Your task to perform on an android device: change the clock display to analog Image 0: 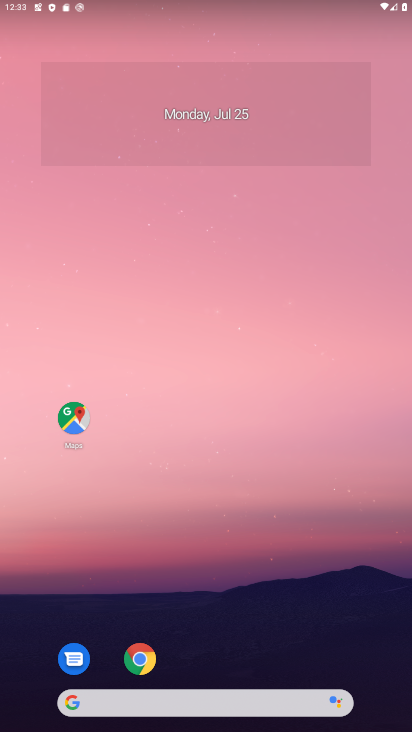
Step 0: drag from (324, 529) to (406, 161)
Your task to perform on an android device: change the clock display to analog Image 1: 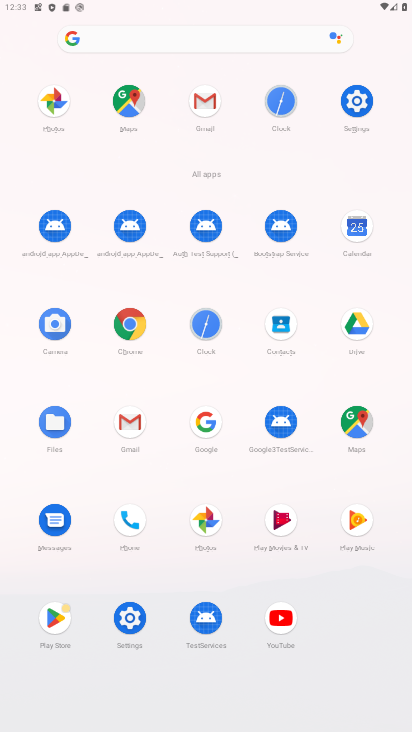
Step 1: click (196, 329)
Your task to perform on an android device: change the clock display to analog Image 2: 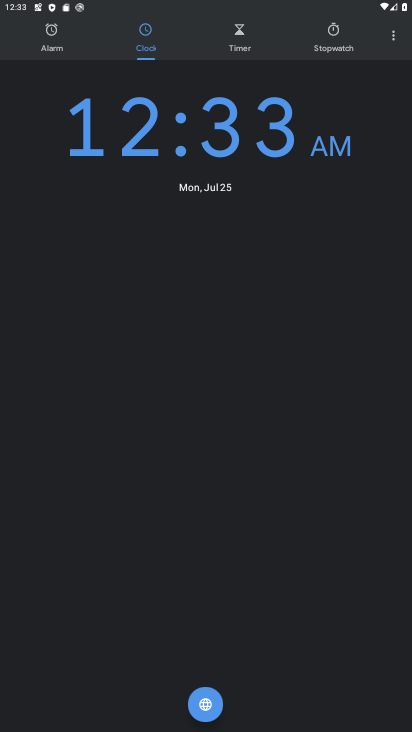
Step 2: click (396, 36)
Your task to perform on an android device: change the clock display to analog Image 3: 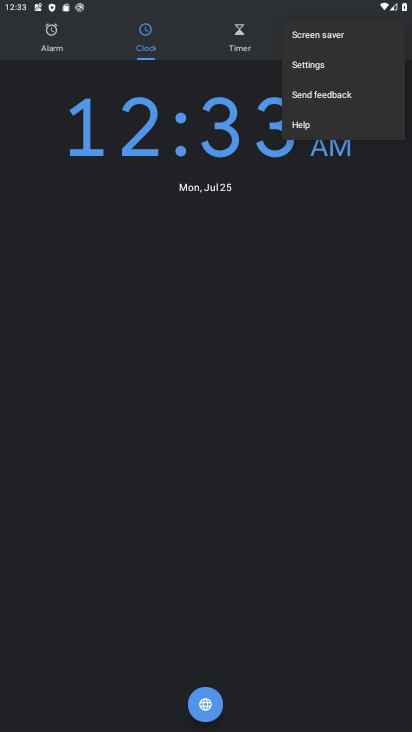
Step 3: click (304, 70)
Your task to perform on an android device: change the clock display to analog Image 4: 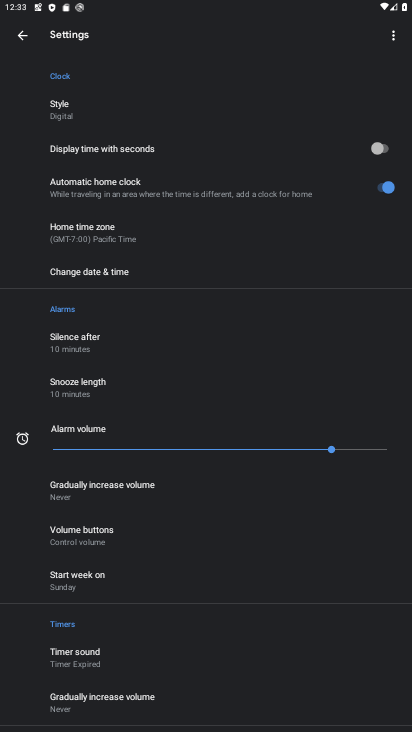
Step 4: click (81, 119)
Your task to perform on an android device: change the clock display to analog Image 5: 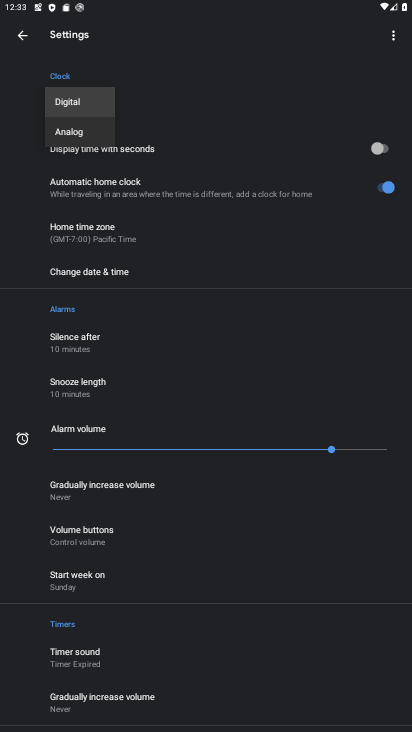
Step 5: click (70, 142)
Your task to perform on an android device: change the clock display to analog Image 6: 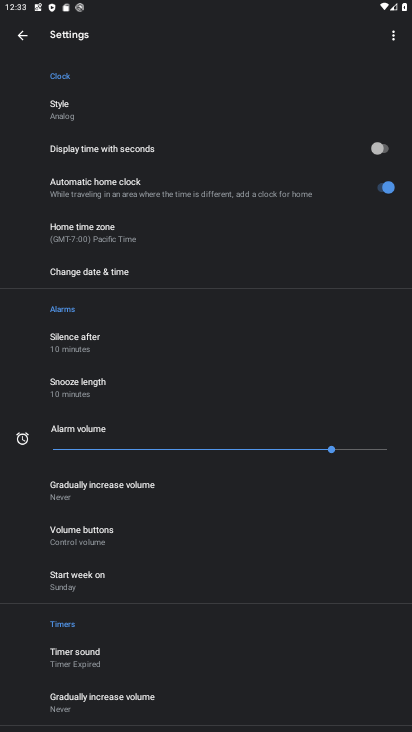
Step 6: task complete